Your task to perform on an android device: turn off priority inbox in the gmail app Image 0: 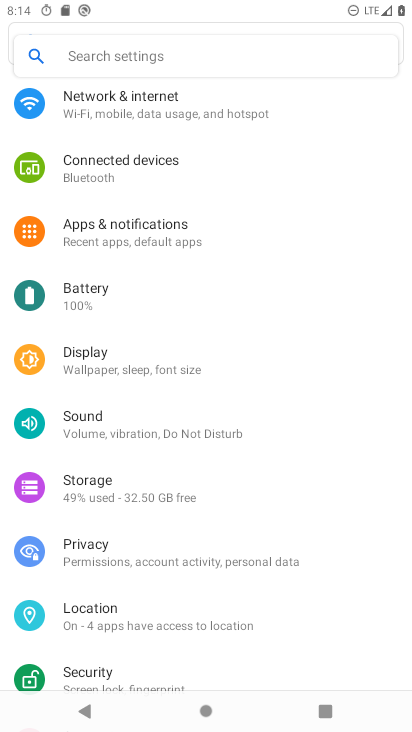
Step 0: press home button
Your task to perform on an android device: turn off priority inbox in the gmail app Image 1: 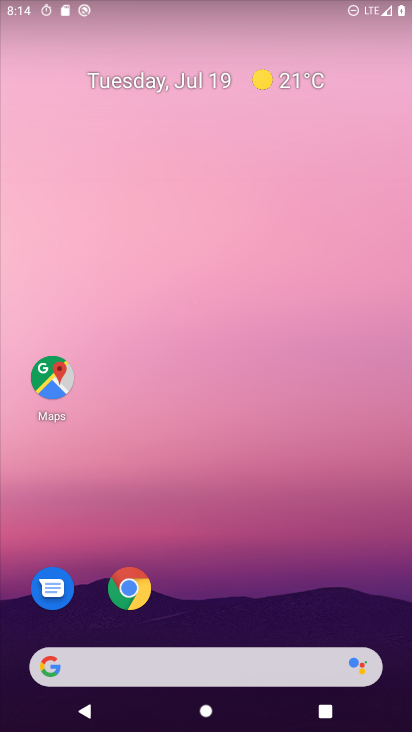
Step 1: drag from (290, 592) to (354, 155)
Your task to perform on an android device: turn off priority inbox in the gmail app Image 2: 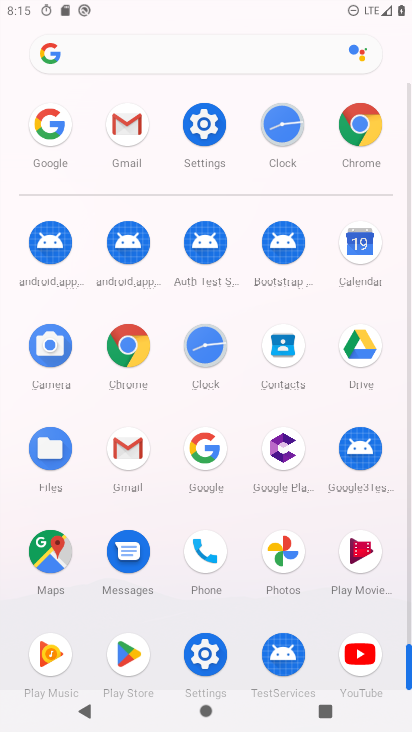
Step 2: click (126, 461)
Your task to perform on an android device: turn off priority inbox in the gmail app Image 3: 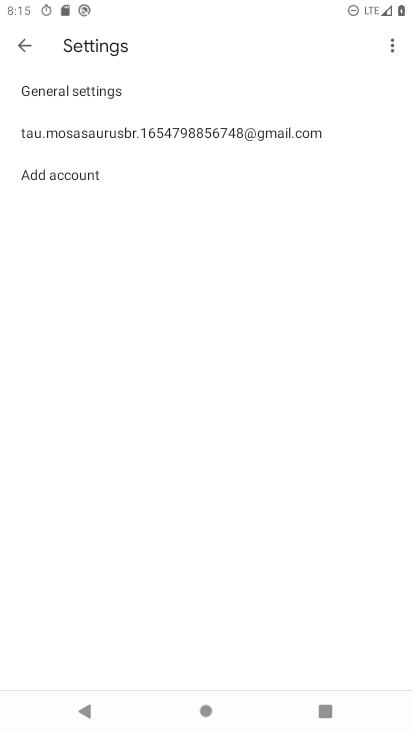
Step 3: click (178, 146)
Your task to perform on an android device: turn off priority inbox in the gmail app Image 4: 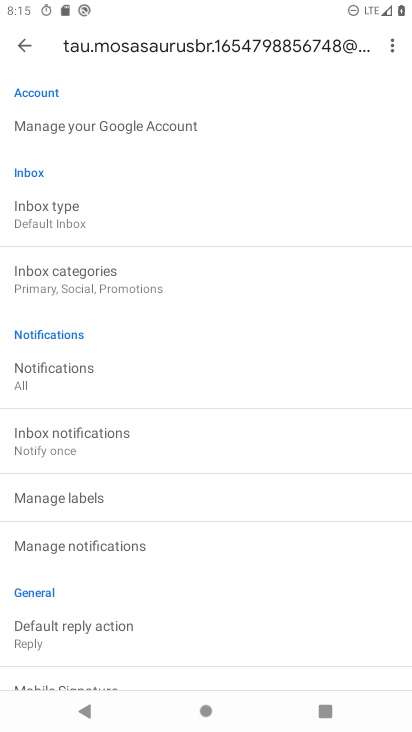
Step 4: click (129, 231)
Your task to perform on an android device: turn off priority inbox in the gmail app Image 5: 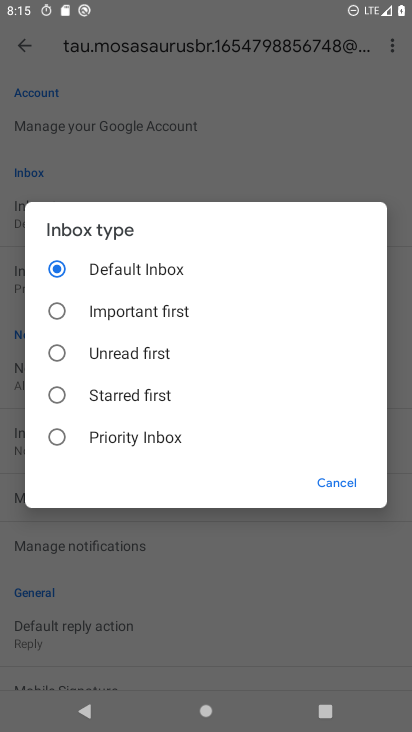
Step 5: click (106, 440)
Your task to perform on an android device: turn off priority inbox in the gmail app Image 6: 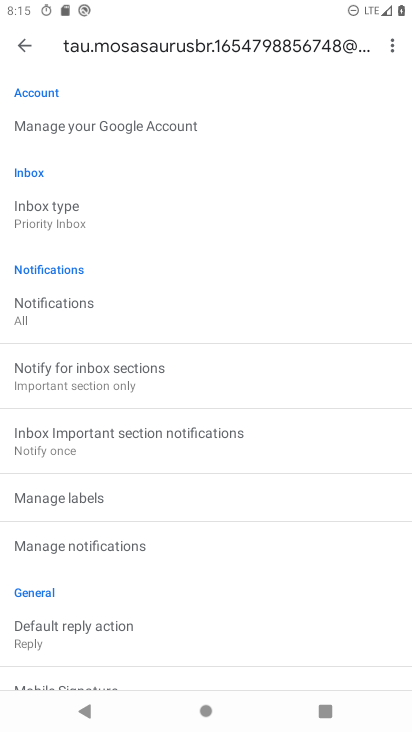
Step 6: click (170, 230)
Your task to perform on an android device: turn off priority inbox in the gmail app Image 7: 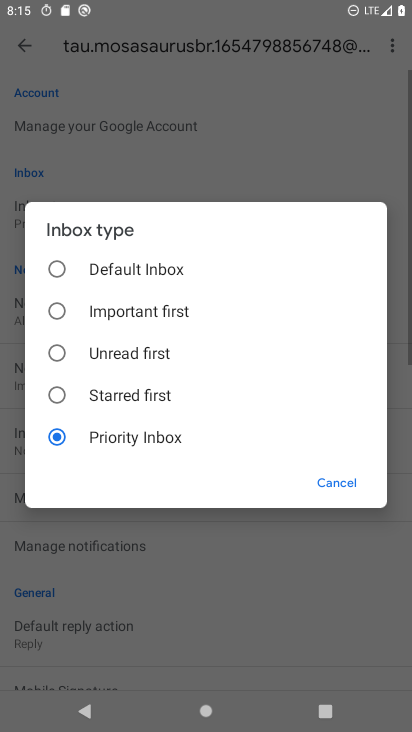
Step 7: click (114, 271)
Your task to perform on an android device: turn off priority inbox in the gmail app Image 8: 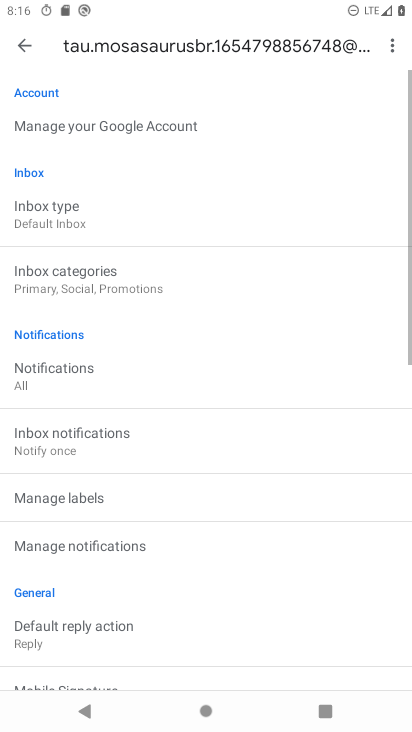
Step 8: task complete